Your task to perform on an android device: Open location settings Image 0: 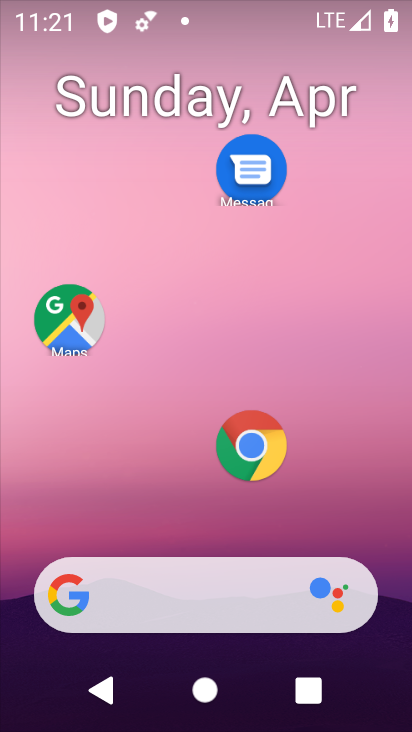
Step 0: drag from (174, 594) to (327, 59)
Your task to perform on an android device: Open location settings Image 1: 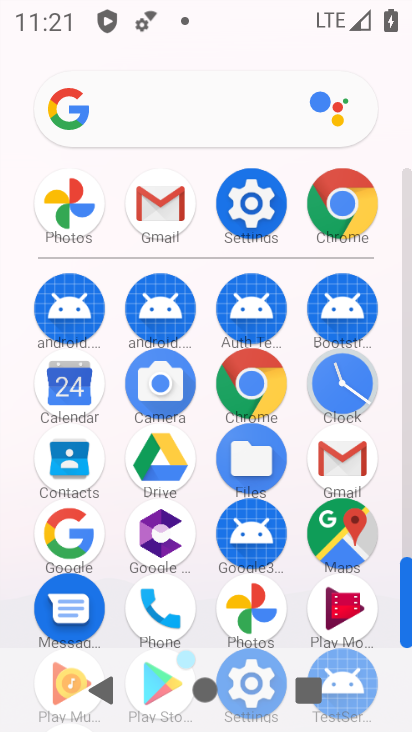
Step 1: click (253, 205)
Your task to perform on an android device: Open location settings Image 2: 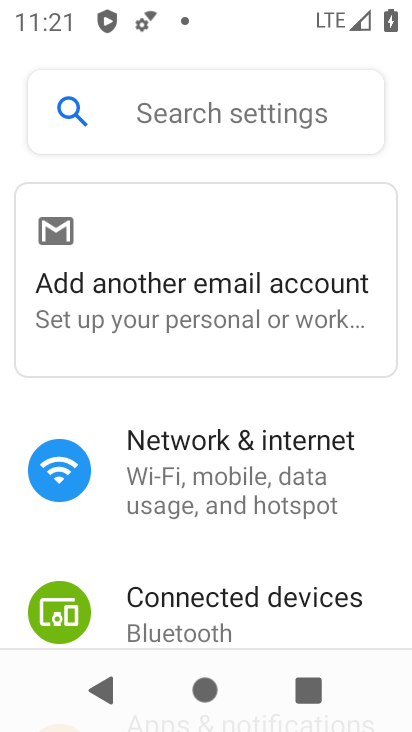
Step 2: drag from (188, 621) to (331, 244)
Your task to perform on an android device: Open location settings Image 3: 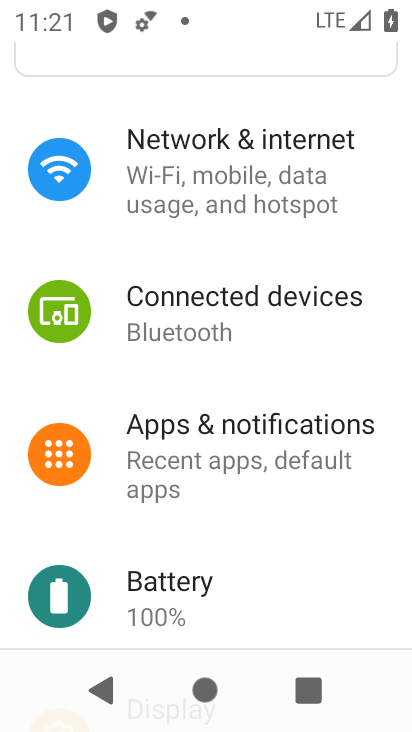
Step 3: drag from (211, 609) to (411, 105)
Your task to perform on an android device: Open location settings Image 4: 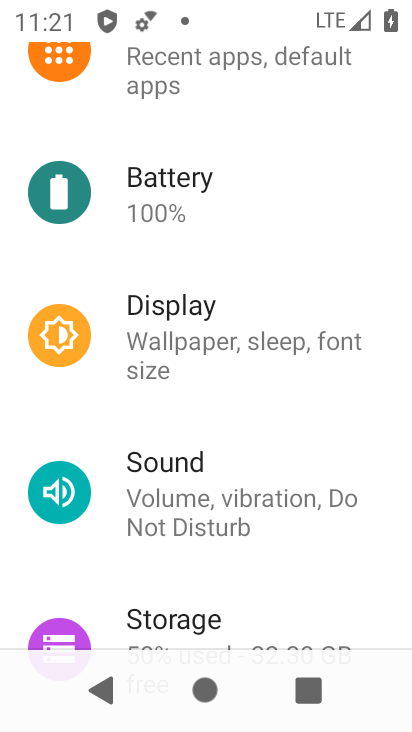
Step 4: drag from (208, 583) to (319, 52)
Your task to perform on an android device: Open location settings Image 5: 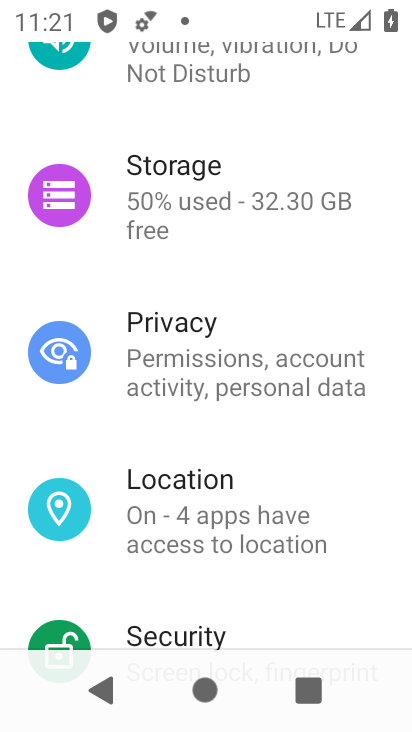
Step 5: click (191, 486)
Your task to perform on an android device: Open location settings Image 6: 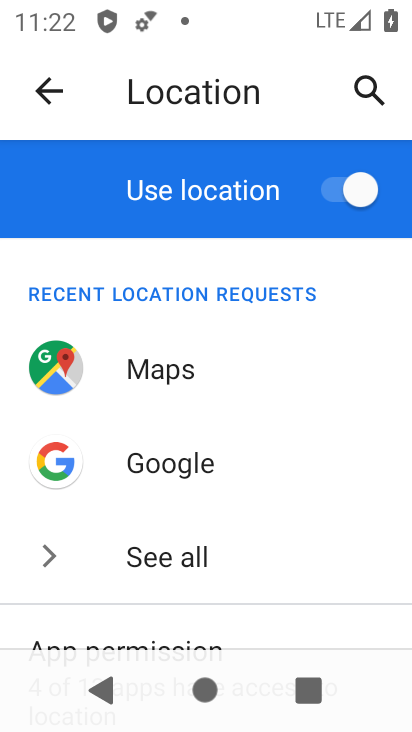
Step 6: task complete